Your task to perform on an android device: Open sound settings Image 0: 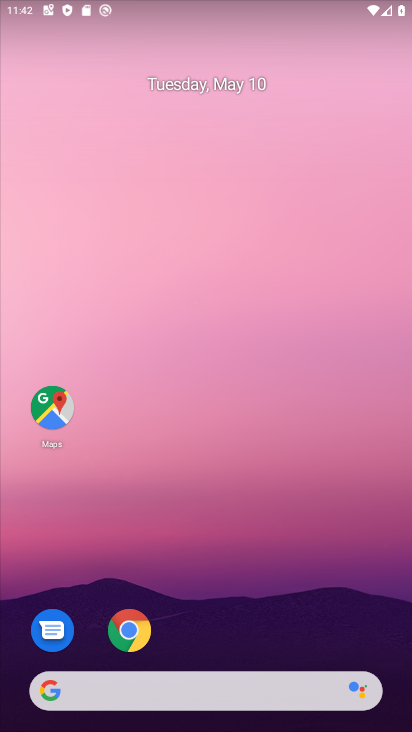
Step 0: drag from (226, 626) to (267, 57)
Your task to perform on an android device: Open sound settings Image 1: 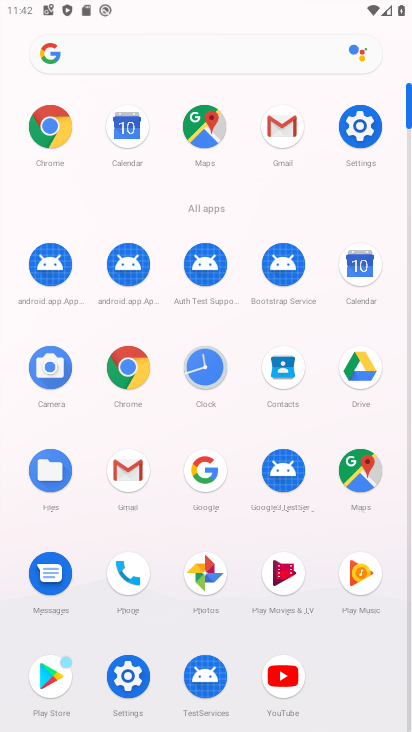
Step 1: click (359, 127)
Your task to perform on an android device: Open sound settings Image 2: 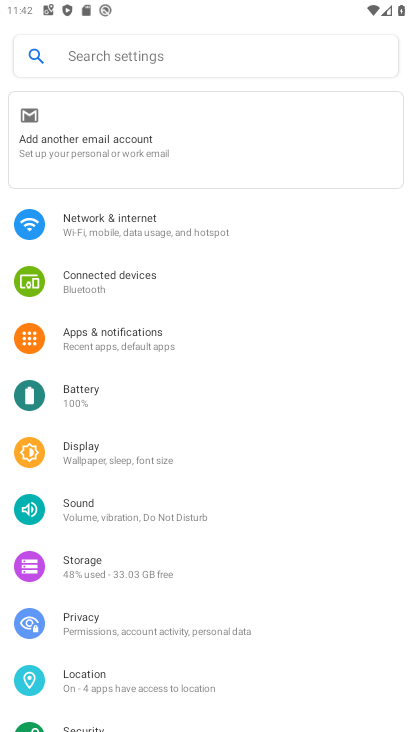
Step 2: click (126, 511)
Your task to perform on an android device: Open sound settings Image 3: 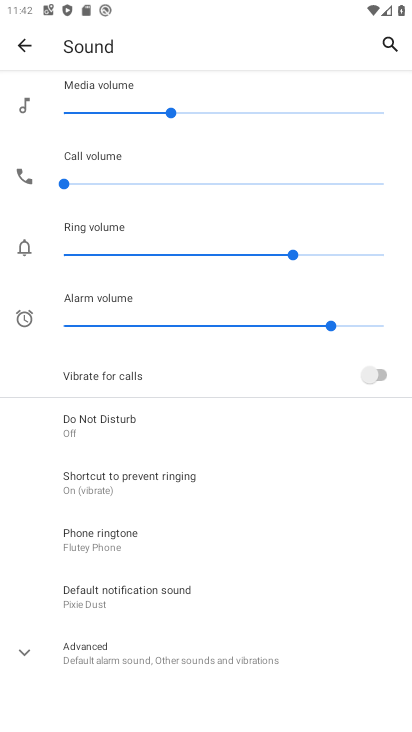
Step 3: task complete